Your task to perform on an android device: delete location history Image 0: 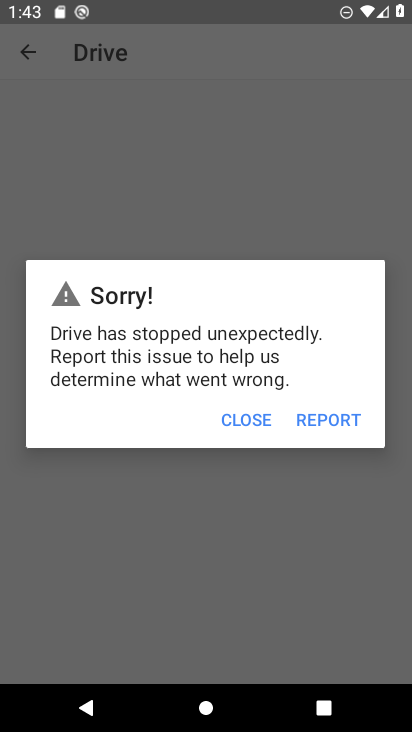
Step 0: press home button
Your task to perform on an android device: delete location history Image 1: 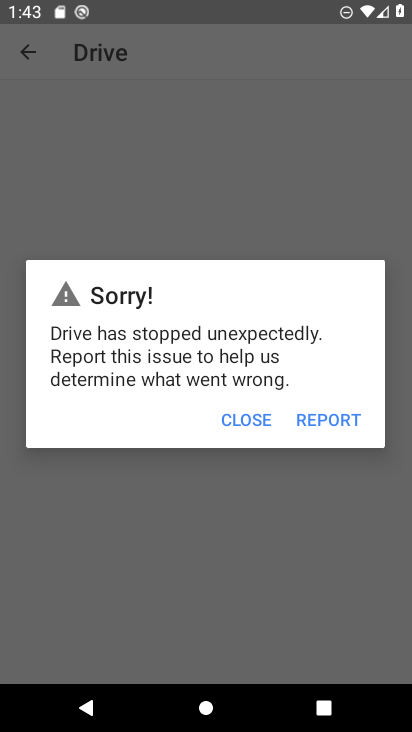
Step 1: press home button
Your task to perform on an android device: delete location history Image 2: 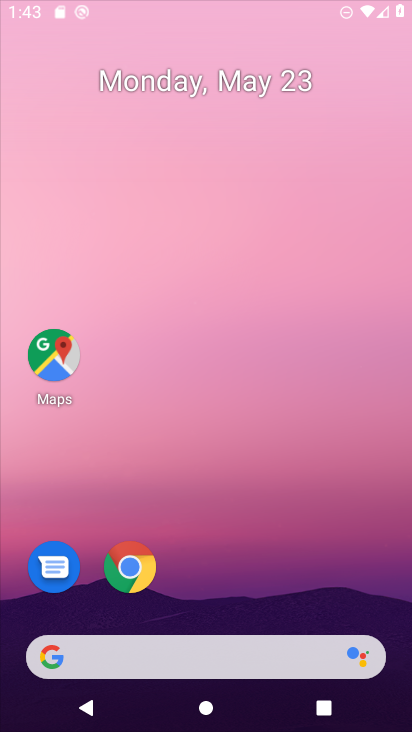
Step 2: press home button
Your task to perform on an android device: delete location history Image 3: 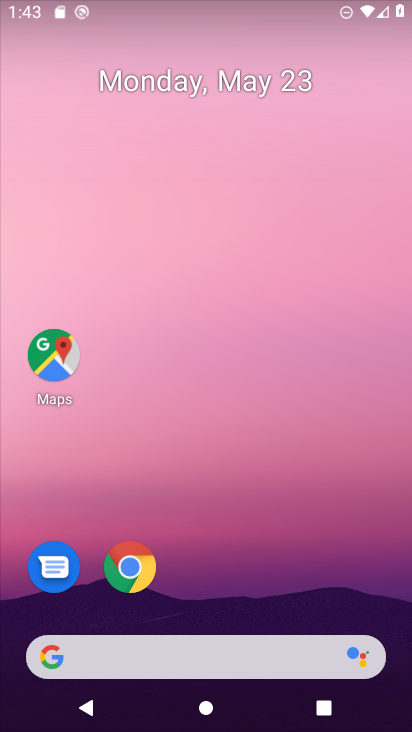
Step 3: press home button
Your task to perform on an android device: delete location history Image 4: 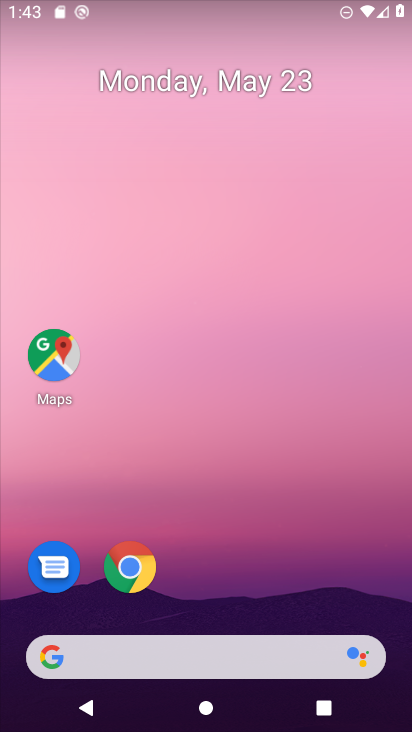
Step 4: drag from (228, 556) to (199, 62)
Your task to perform on an android device: delete location history Image 5: 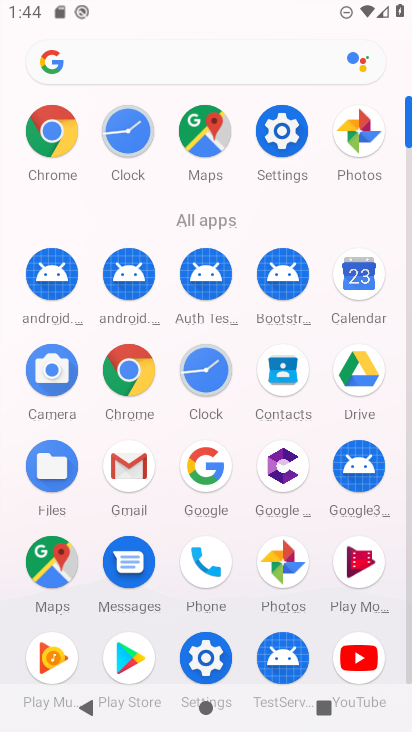
Step 5: click (53, 557)
Your task to perform on an android device: delete location history Image 6: 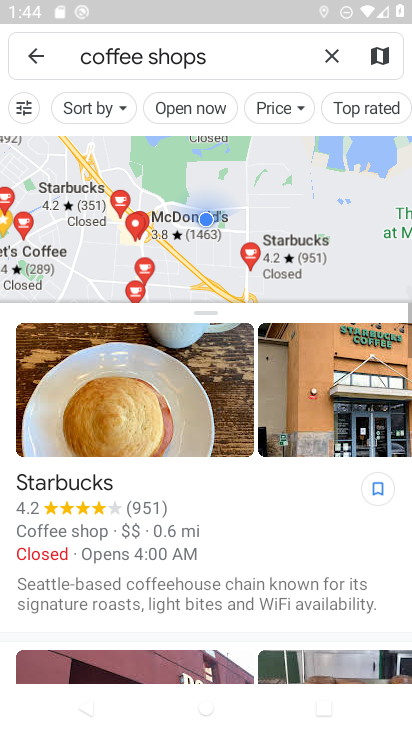
Step 6: click (37, 64)
Your task to perform on an android device: delete location history Image 7: 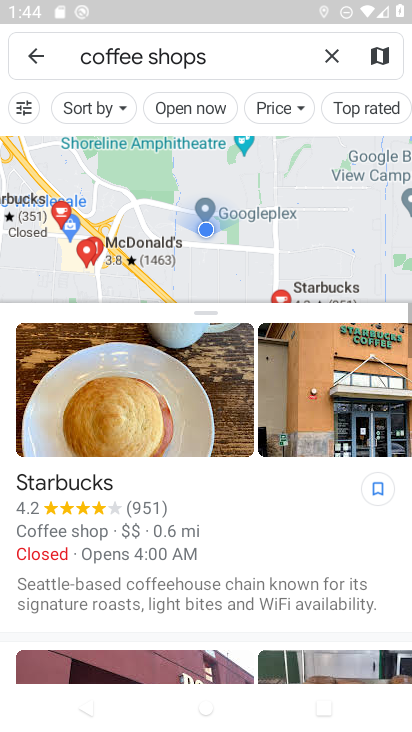
Step 7: click (37, 64)
Your task to perform on an android device: delete location history Image 8: 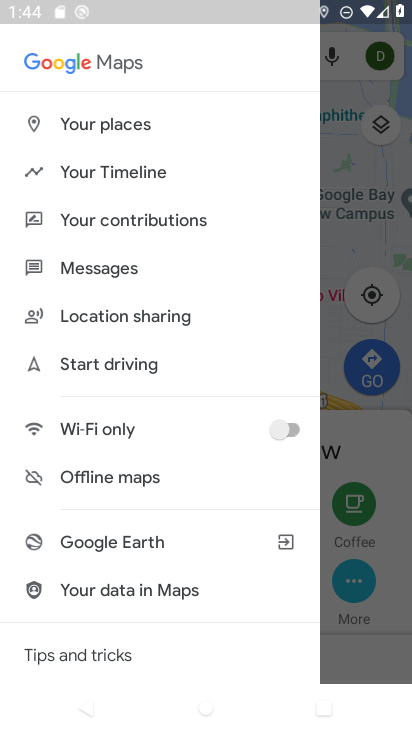
Step 8: click (106, 169)
Your task to perform on an android device: delete location history Image 9: 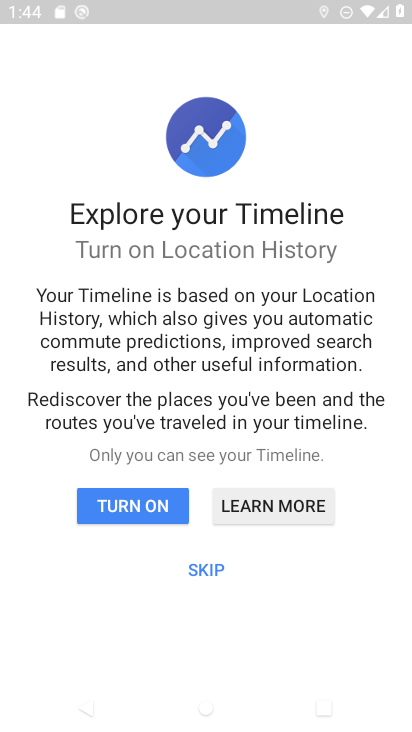
Step 9: click (178, 580)
Your task to perform on an android device: delete location history Image 10: 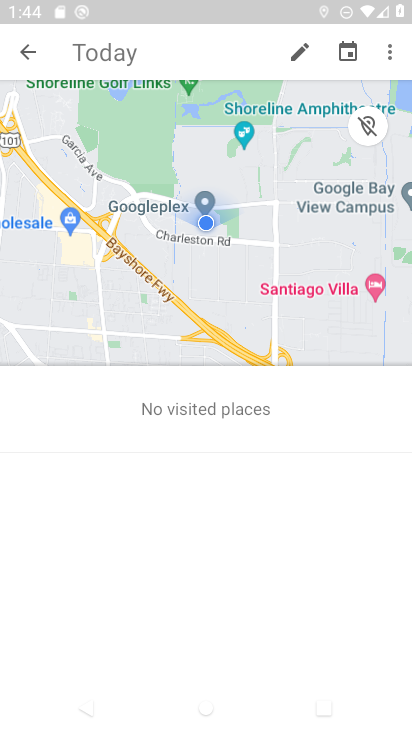
Step 10: click (384, 48)
Your task to perform on an android device: delete location history Image 11: 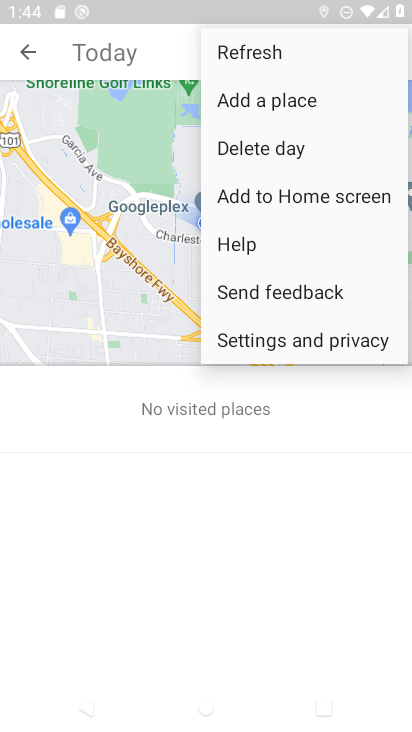
Step 11: click (302, 345)
Your task to perform on an android device: delete location history Image 12: 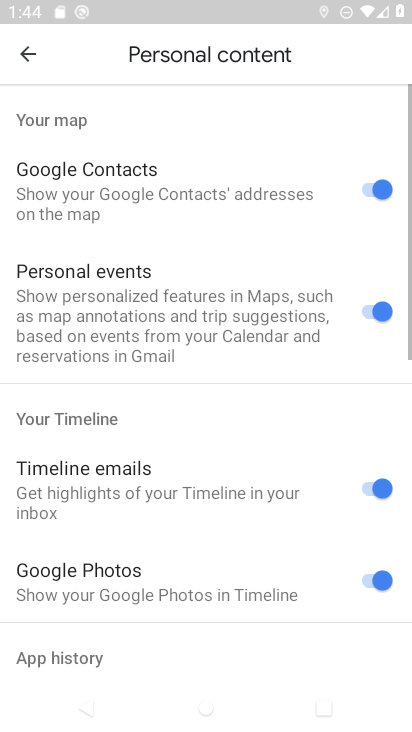
Step 12: drag from (209, 561) to (240, 277)
Your task to perform on an android device: delete location history Image 13: 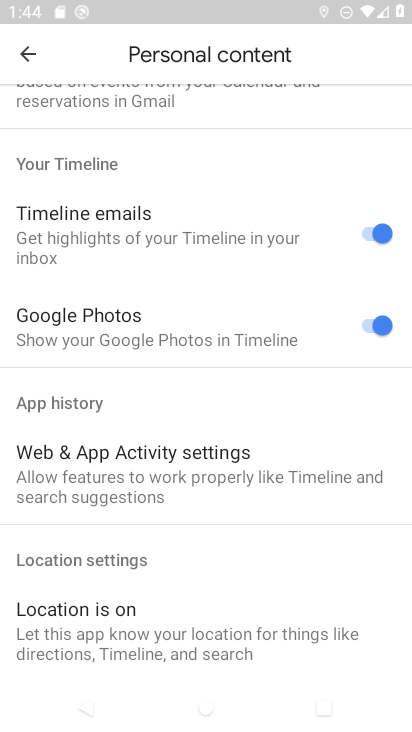
Step 13: drag from (228, 622) to (239, 364)
Your task to perform on an android device: delete location history Image 14: 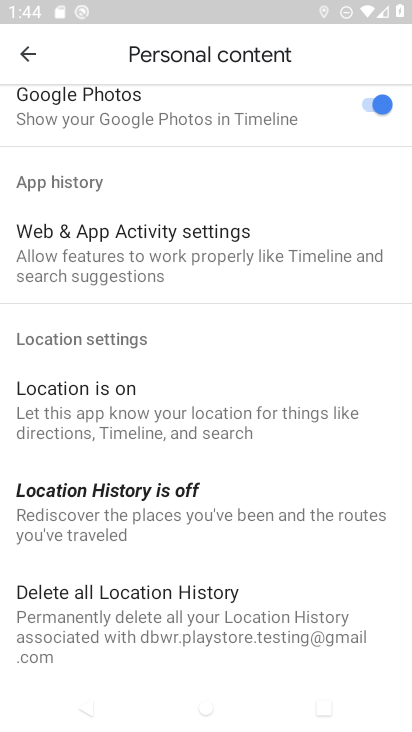
Step 14: click (170, 504)
Your task to perform on an android device: delete location history Image 15: 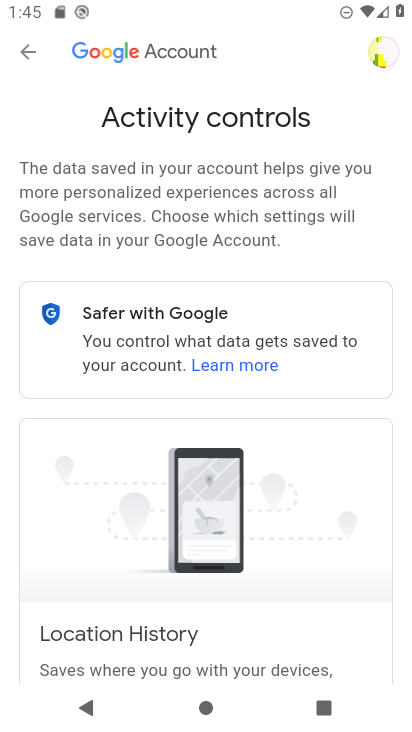
Step 15: drag from (234, 483) to (114, 26)
Your task to perform on an android device: delete location history Image 16: 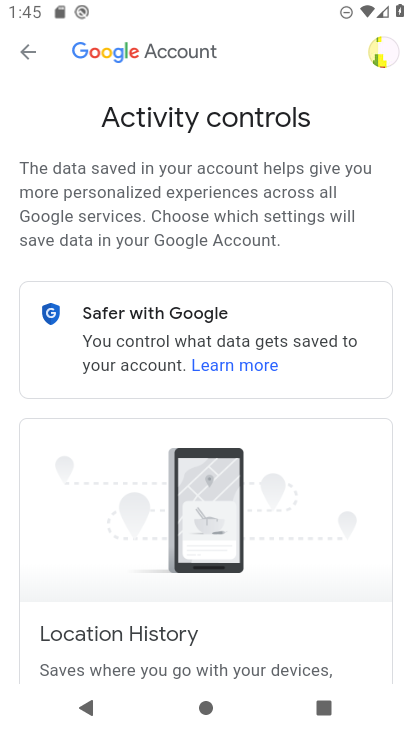
Step 16: drag from (343, 491) to (282, 167)
Your task to perform on an android device: delete location history Image 17: 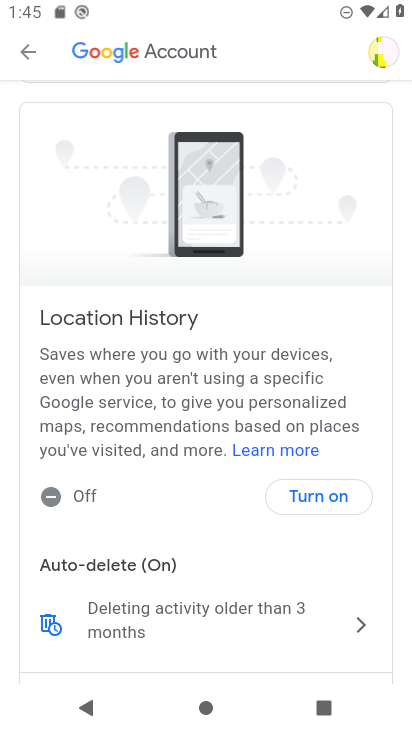
Step 17: click (324, 499)
Your task to perform on an android device: delete location history Image 18: 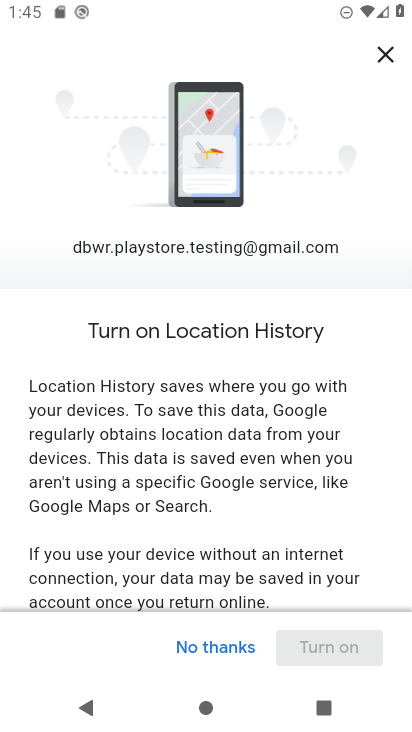
Step 18: drag from (284, 573) to (133, 84)
Your task to perform on an android device: delete location history Image 19: 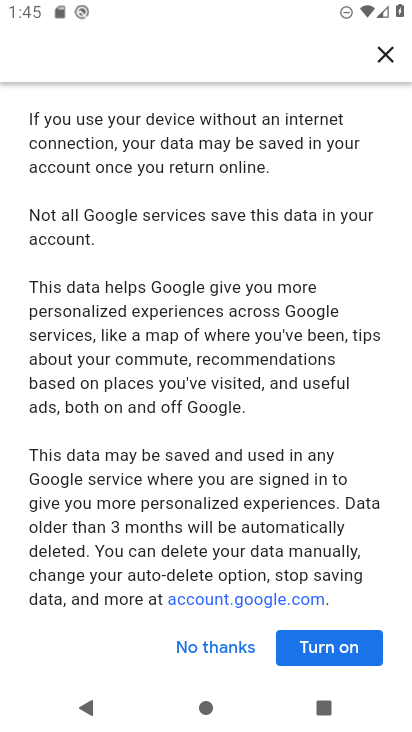
Step 19: click (346, 659)
Your task to perform on an android device: delete location history Image 20: 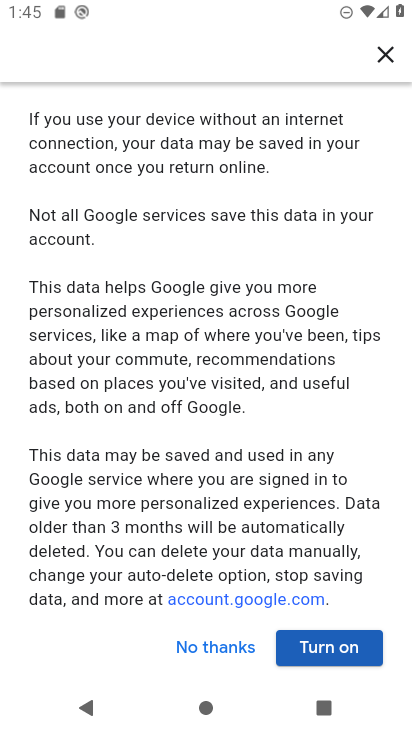
Step 20: click (356, 652)
Your task to perform on an android device: delete location history Image 21: 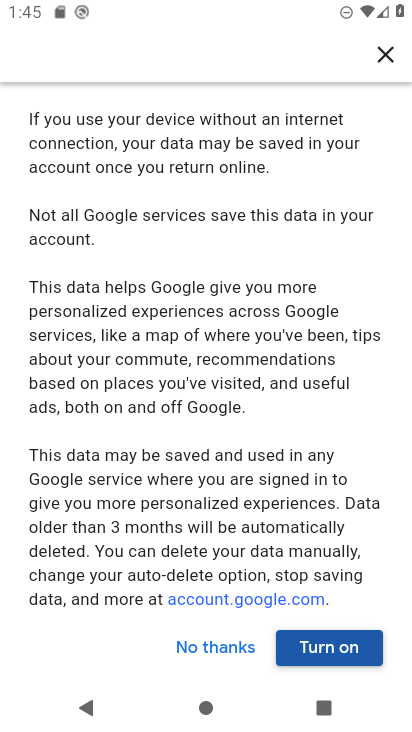
Step 21: drag from (339, 598) to (289, 131)
Your task to perform on an android device: delete location history Image 22: 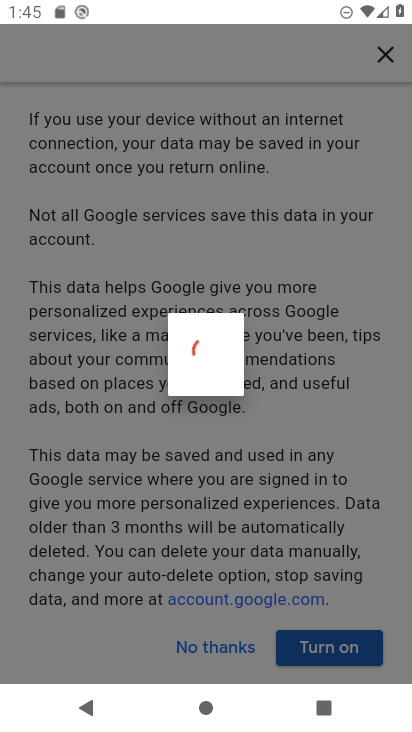
Step 22: click (350, 646)
Your task to perform on an android device: delete location history Image 23: 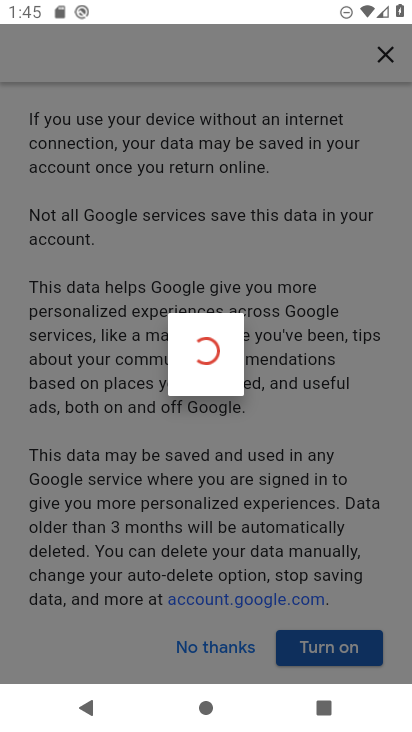
Step 23: click (350, 646)
Your task to perform on an android device: delete location history Image 24: 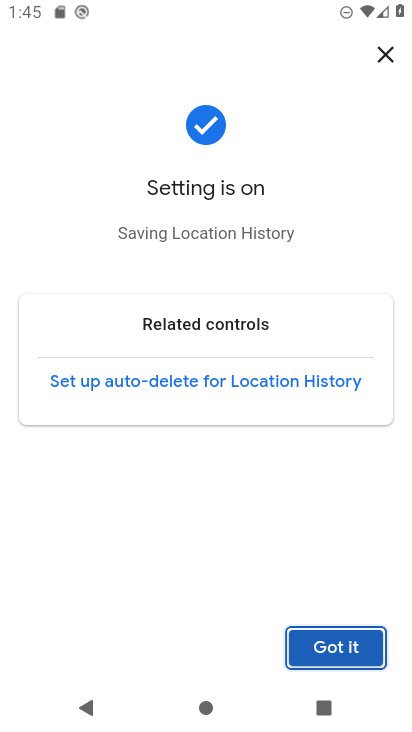
Step 24: click (340, 631)
Your task to perform on an android device: delete location history Image 25: 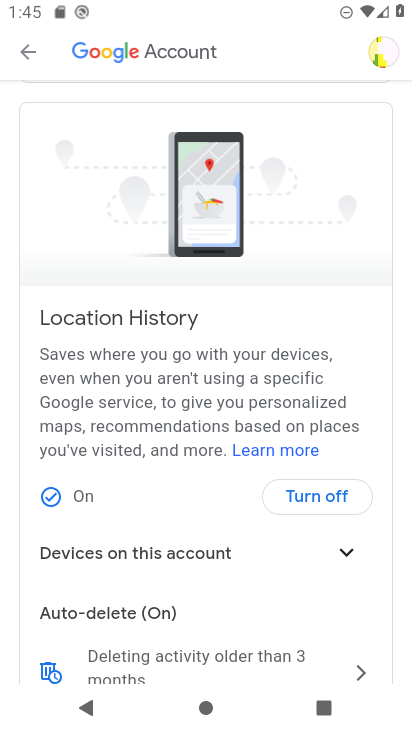
Step 25: task complete